Your task to perform on an android device: Go to wifi settings Image 0: 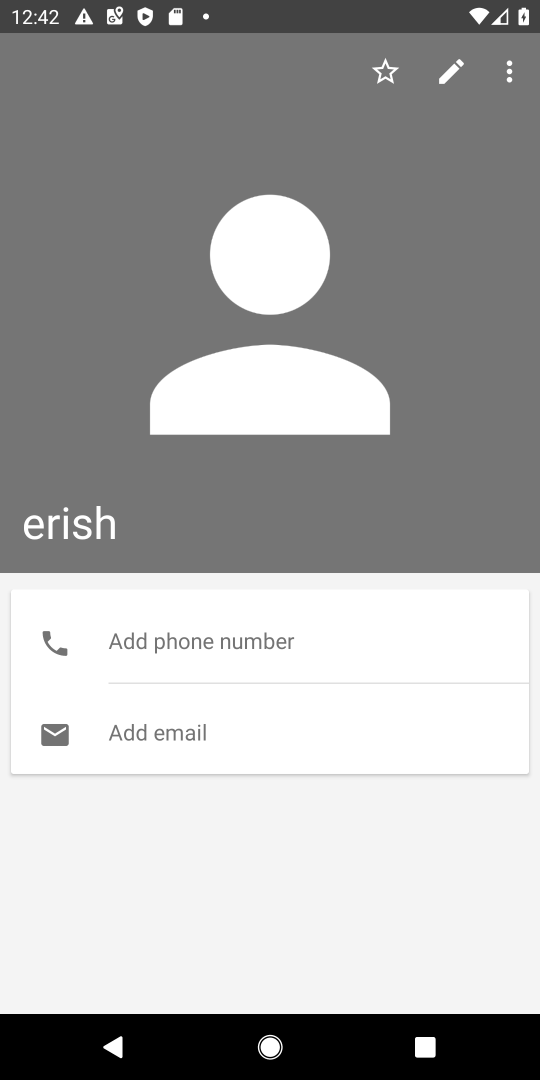
Step 0: press home button
Your task to perform on an android device: Go to wifi settings Image 1: 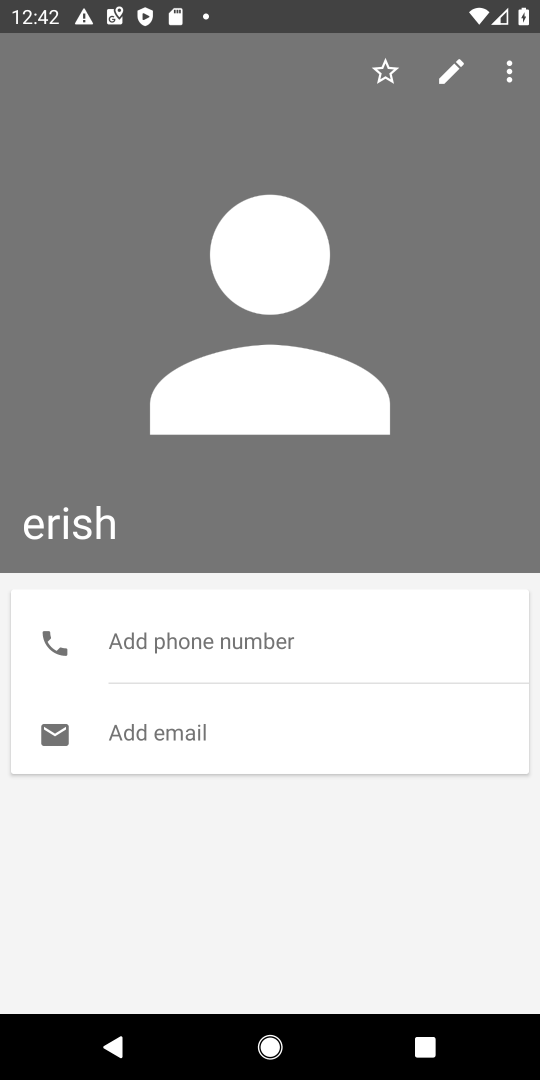
Step 1: drag from (501, 950) to (274, 7)
Your task to perform on an android device: Go to wifi settings Image 2: 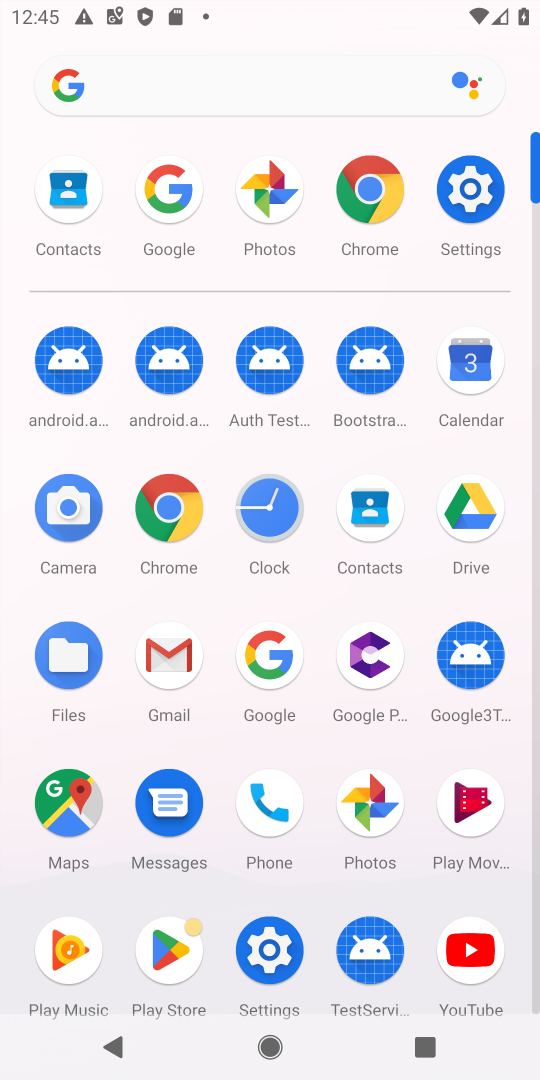
Step 2: click (288, 929)
Your task to perform on an android device: Go to wifi settings Image 3: 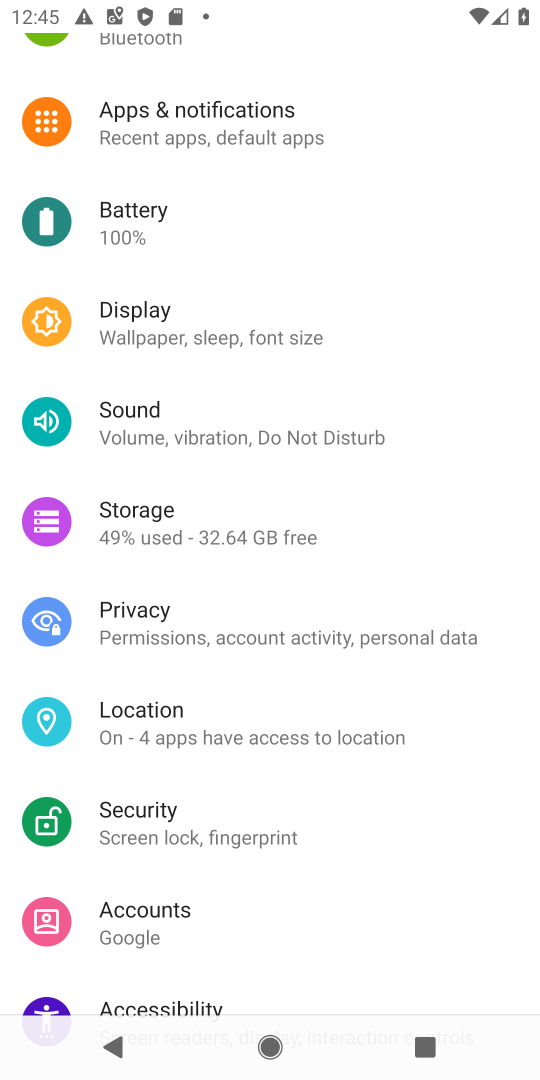
Step 3: drag from (184, 189) to (212, 967)
Your task to perform on an android device: Go to wifi settings Image 4: 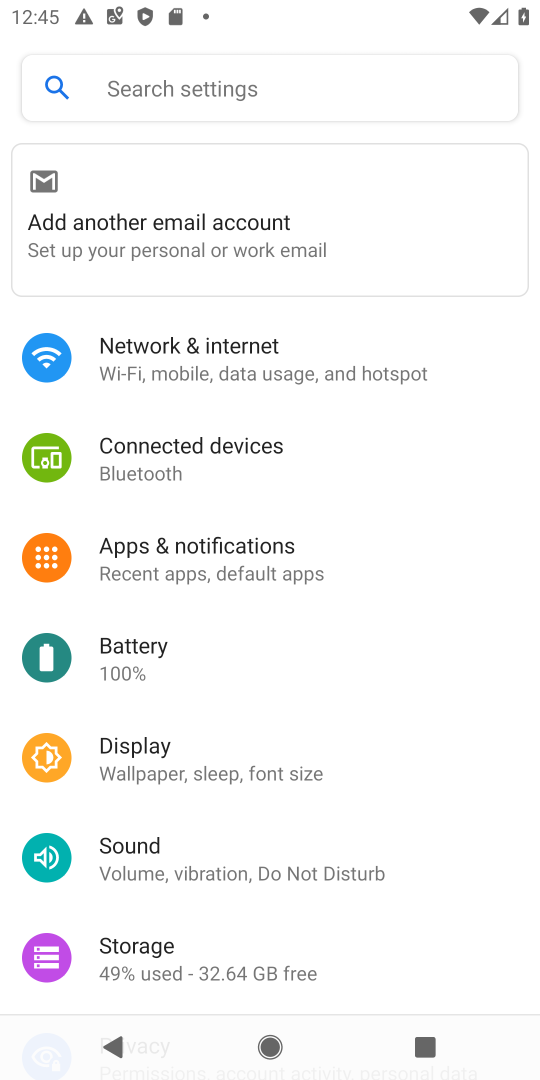
Step 4: click (189, 349)
Your task to perform on an android device: Go to wifi settings Image 5: 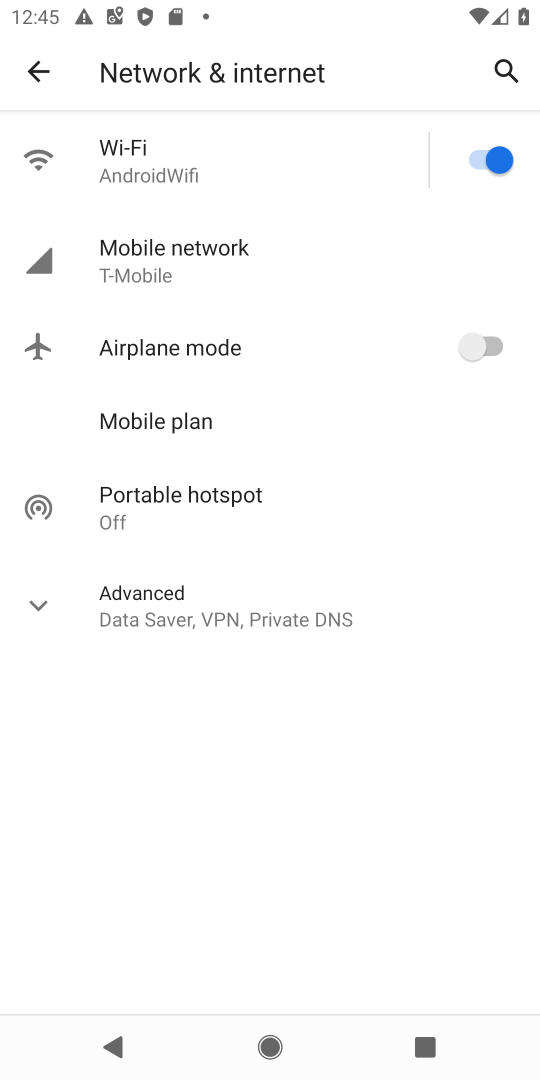
Step 5: click (180, 167)
Your task to perform on an android device: Go to wifi settings Image 6: 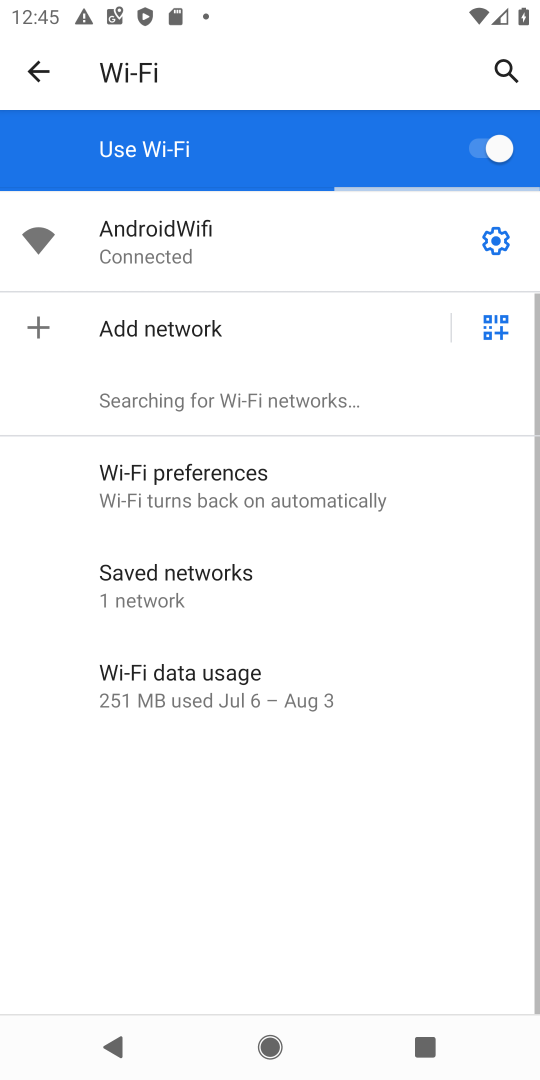
Step 6: task complete